Your task to perform on an android device: open a new tab in the chrome app Image 0: 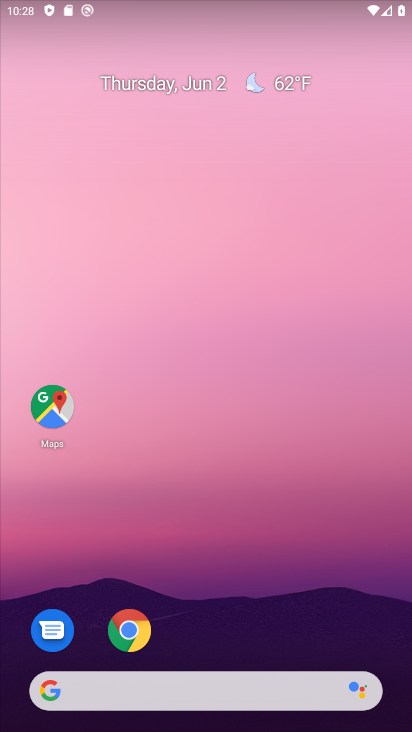
Step 0: press home button
Your task to perform on an android device: open a new tab in the chrome app Image 1: 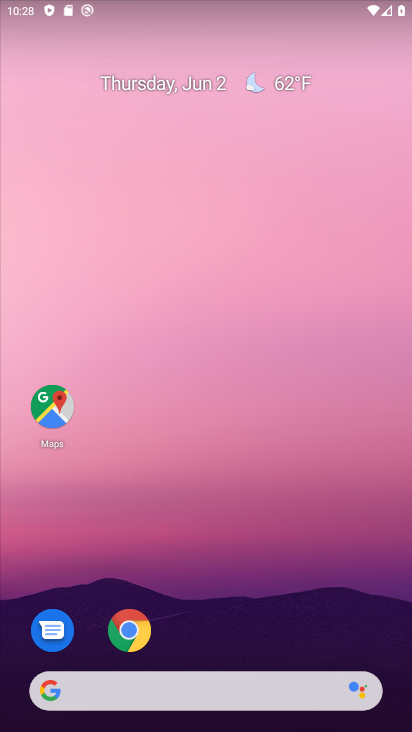
Step 1: click (131, 627)
Your task to perform on an android device: open a new tab in the chrome app Image 2: 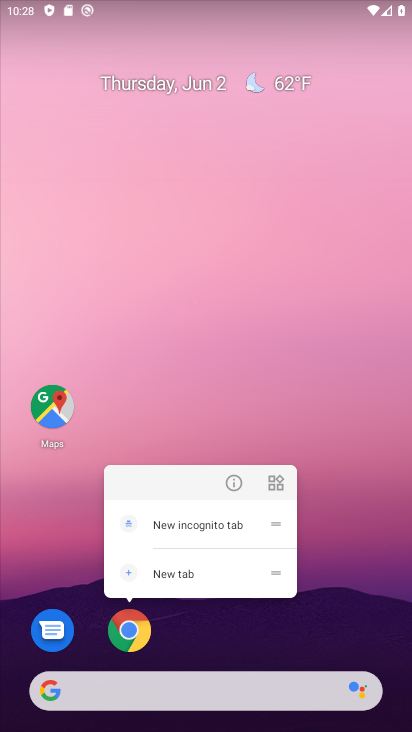
Step 2: click (128, 631)
Your task to perform on an android device: open a new tab in the chrome app Image 3: 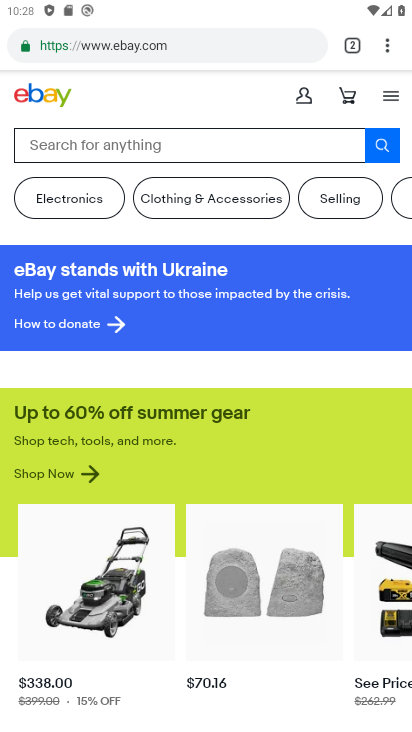
Step 3: task complete